Your task to perform on an android device: turn notification dots on Image 0: 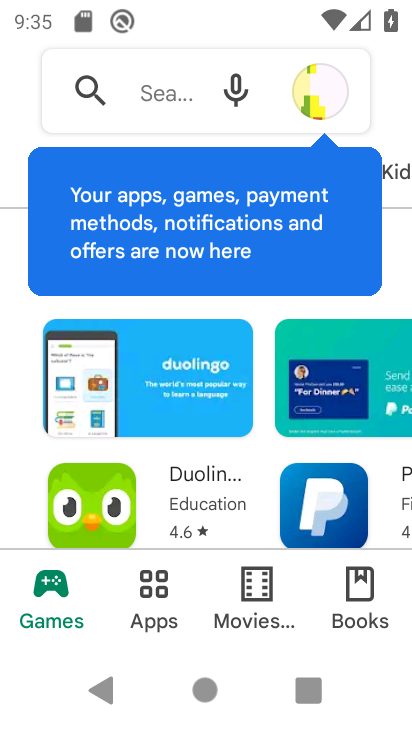
Step 0: press home button
Your task to perform on an android device: turn notification dots on Image 1: 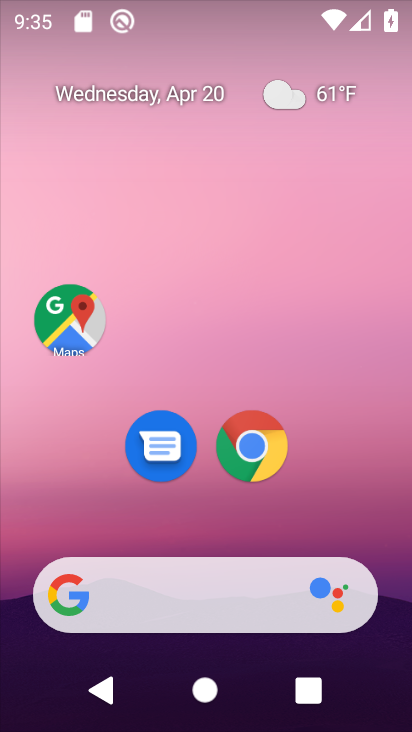
Step 1: drag from (366, 472) to (400, 101)
Your task to perform on an android device: turn notification dots on Image 2: 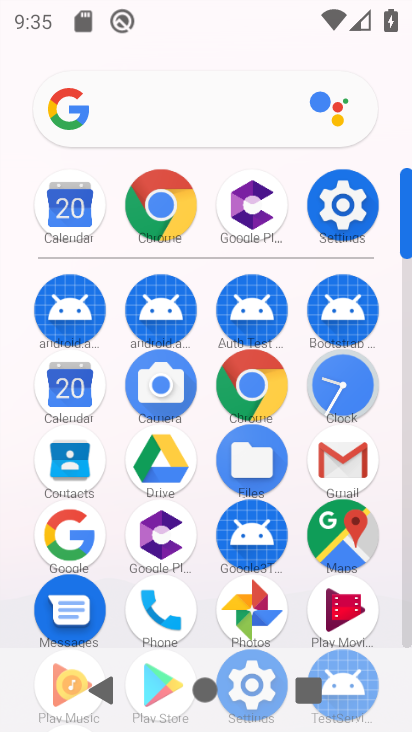
Step 2: click (343, 201)
Your task to perform on an android device: turn notification dots on Image 3: 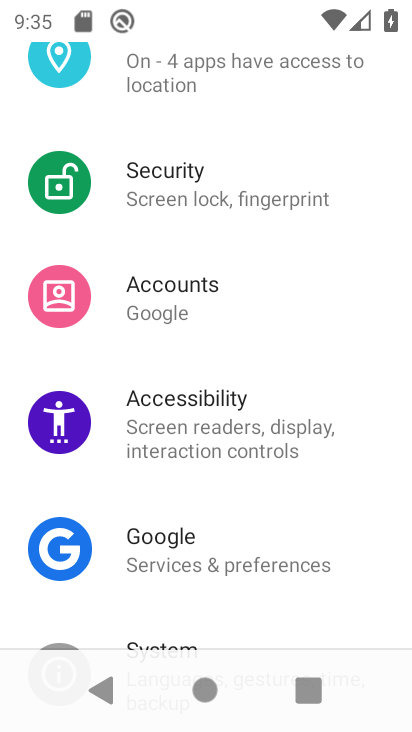
Step 3: drag from (342, 608) to (347, 192)
Your task to perform on an android device: turn notification dots on Image 4: 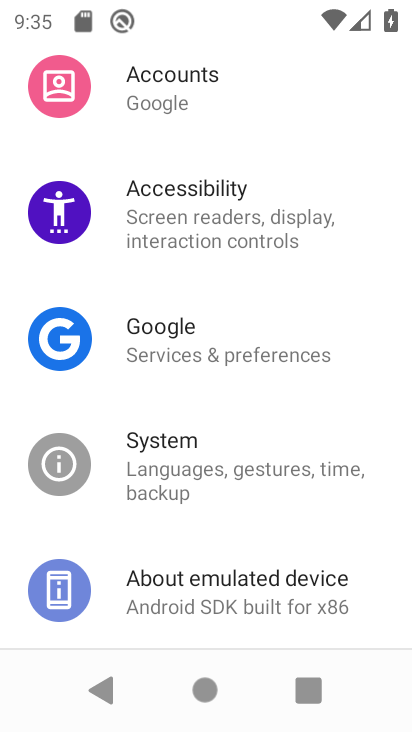
Step 4: drag from (337, 121) to (332, 590)
Your task to perform on an android device: turn notification dots on Image 5: 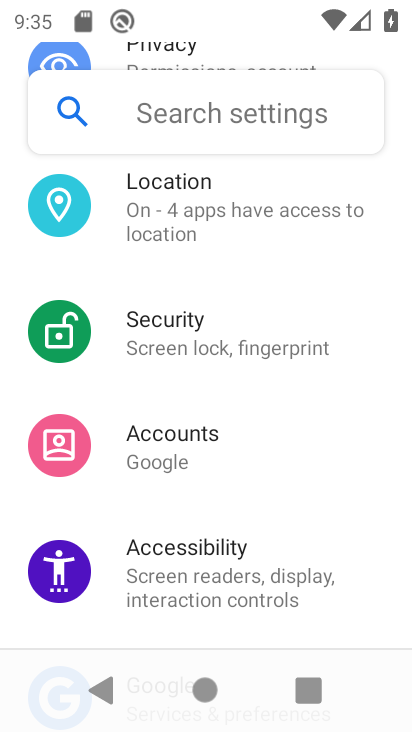
Step 5: drag from (310, 272) to (311, 562)
Your task to perform on an android device: turn notification dots on Image 6: 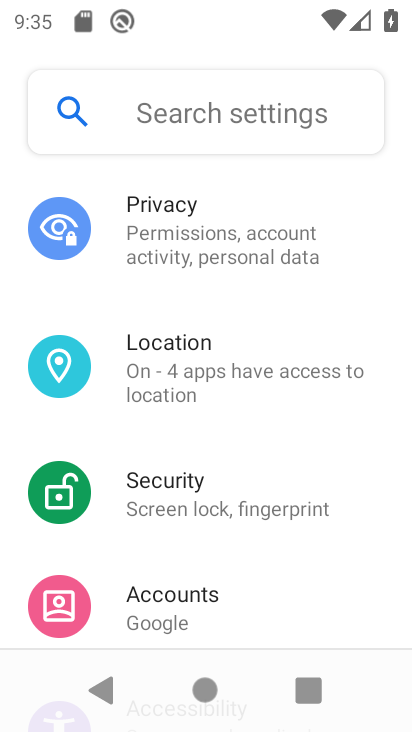
Step 6: drag from (364, 234) to (354, 579)
Your task to perform on an android device: turn notification dots on Image 7: 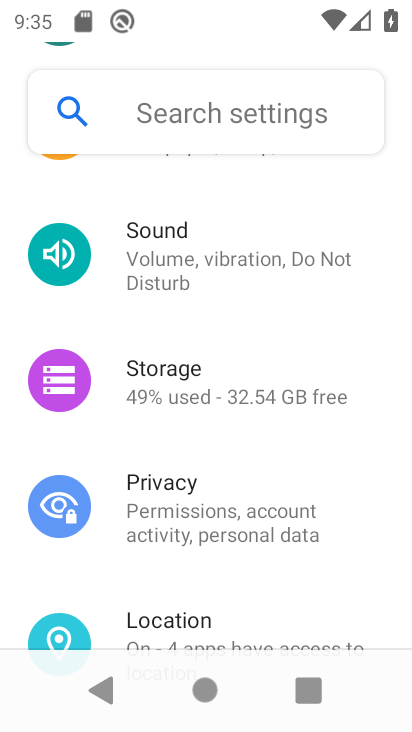
Step 7: drag from (333, 208) to (331, 583)
Your task to perform on an android device: turn notification dots on Image 8: 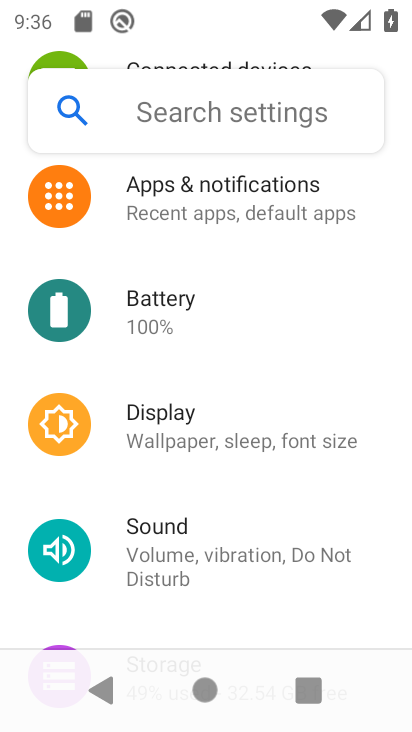
Step 8: click (300, 173)
Your task to perform on an android device: turn notification dots on Image 9: 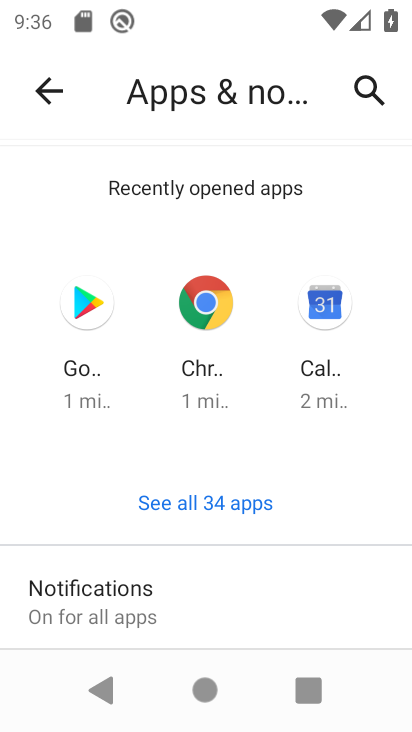
Step 9: click (141, 596)
Your task to perform on an android device: turn notification dots on Image 10: 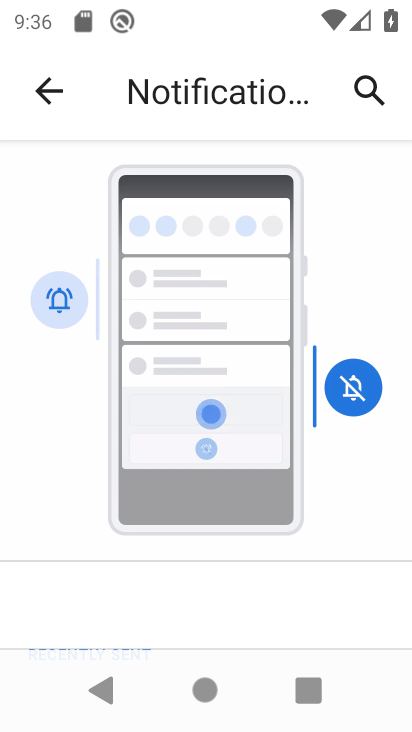
Step 10: drag from (275, 604) to (373, 201)
Your task to perform on an android device: turn notification dots on Image 11: 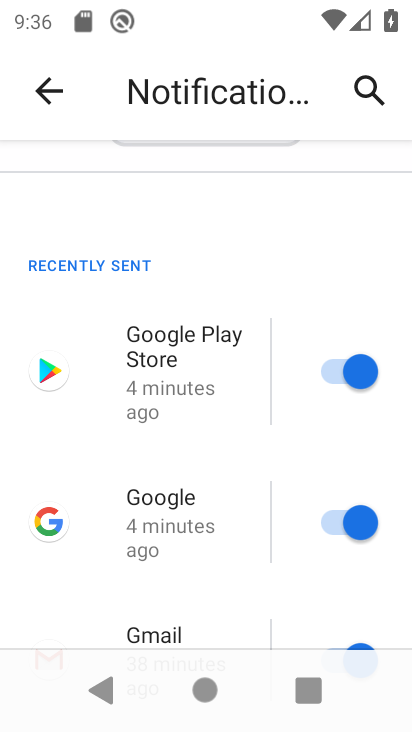
Step 11: drag from (242, 446) to (301, 182)
Your task to perform on an android device: turn notification dots on Image 12: 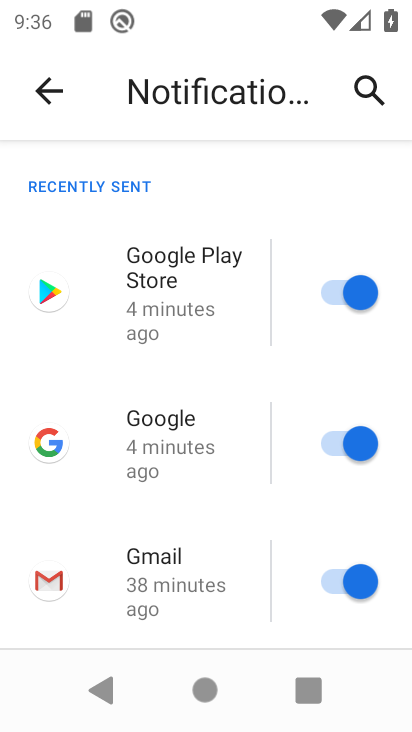
Step 12: drag from (222, 621) to (275, 220)
Your task to perform on an android device: turn notification dots on Image 13: 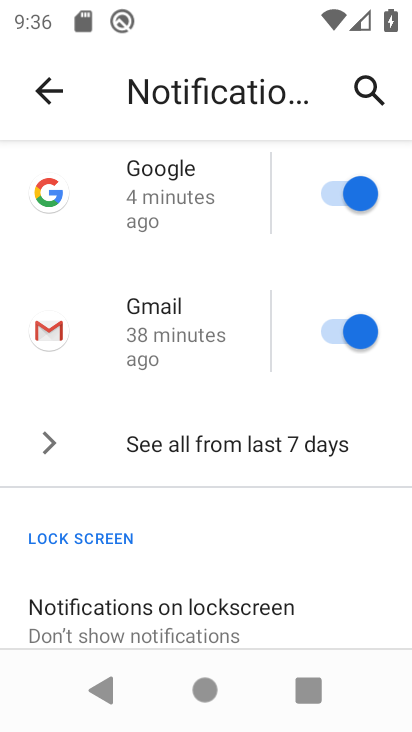
Step 13: drag from (190, 458) to (212, 202)
Your task to perform on an android device: turn notification dots on Image 14: 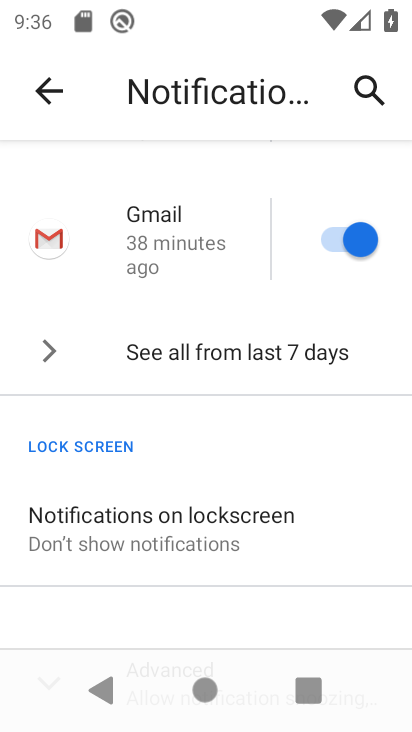
Step 14: drag from (179, 461) to (216, 228)
Your task to perform on an android device: turn notification dots on Image 15: 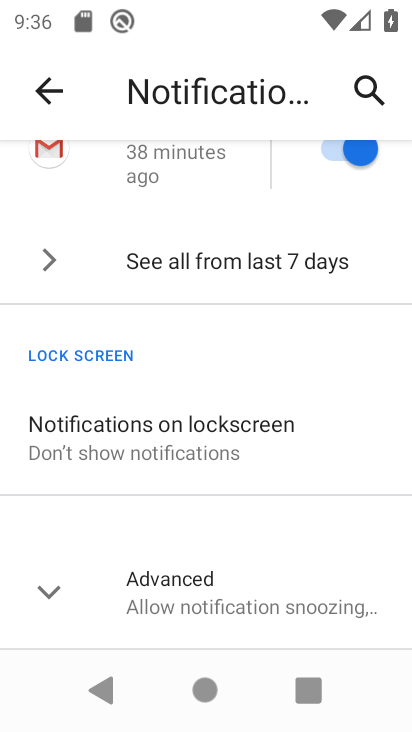
Step 15: click (251, 596)
Your task to perform on an android device: turn notification dots on Image 16: 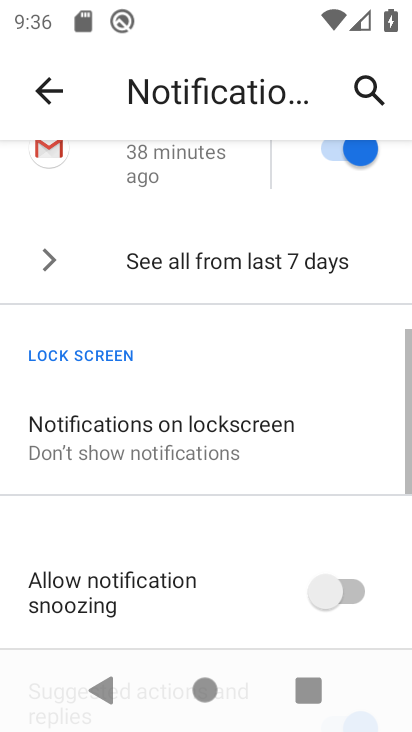
Step 16: task complete